Your task to perform on an android device: set the stopwatch Image 0: 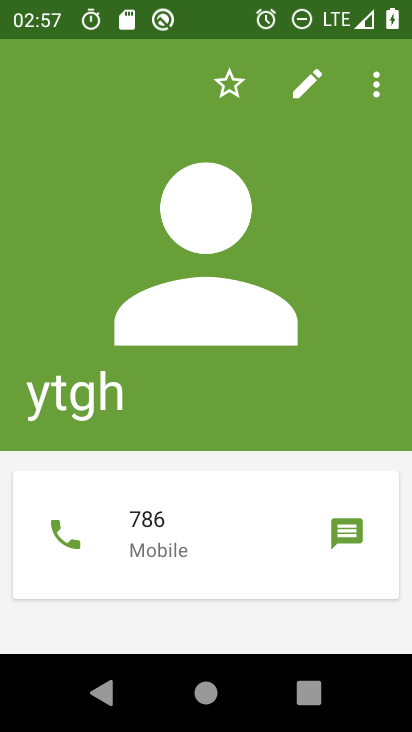
Step 0: press home button
Your task to perform on an android device: set the stopwatch Image 1: 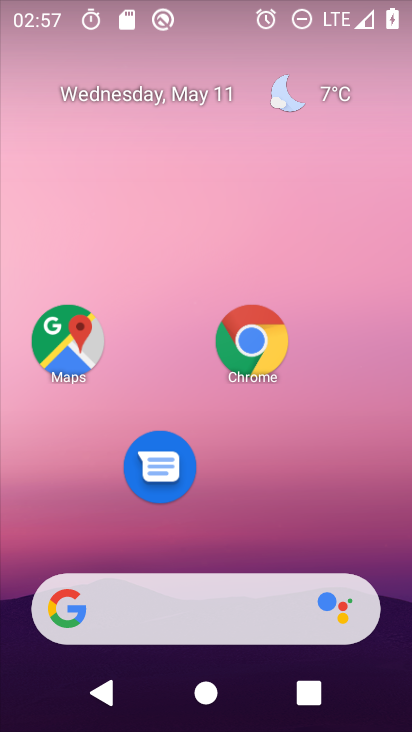
Step 1: drag from (158, 617) to (250, 156)
Your task to perform on an android device: set the stopwatch Image 2: 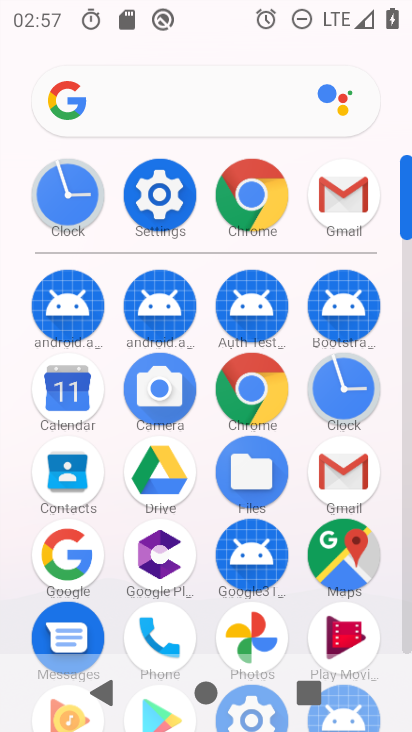
Step 2: click (341, 398)
Your task to perform on an android device: set the stopwatch Image 3: 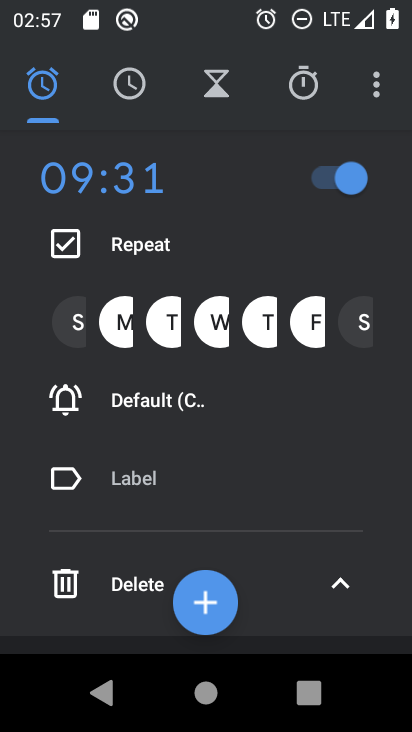
Step 3: click (308, 88)
Your task to perform on an android device: set the stopwatch Image 4: 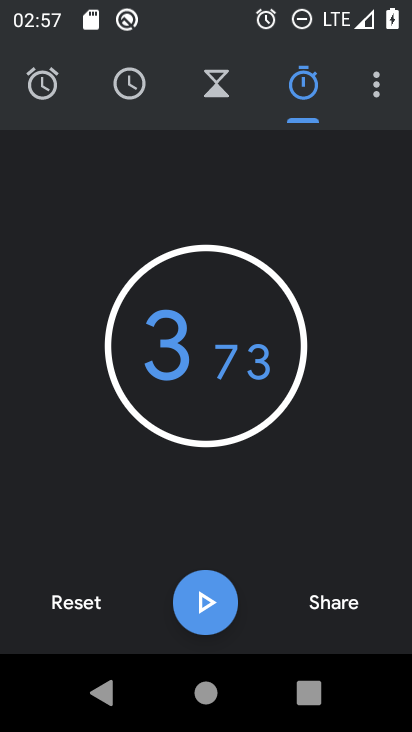
Step 4: click (79, 602)
Your task to perform on an android device: set the stopwatch Image 5: 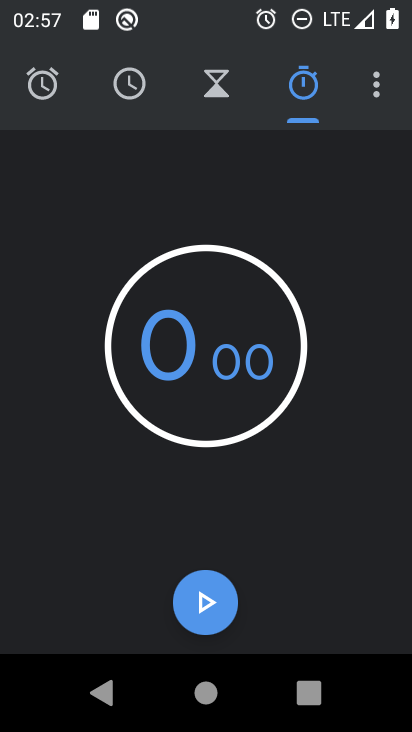
Step 5: click (212, 362)
Your task to perform on an android device: set the stopwatch Image 6: 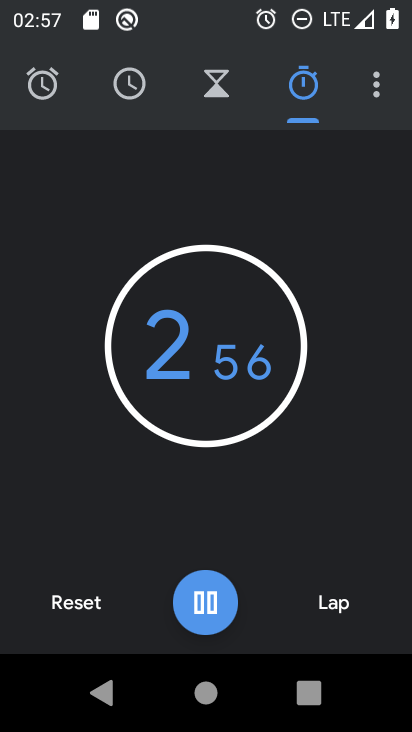
Step 6: click (217, 339)
Your task to perform on an android device: set the stopwatch Image 7: 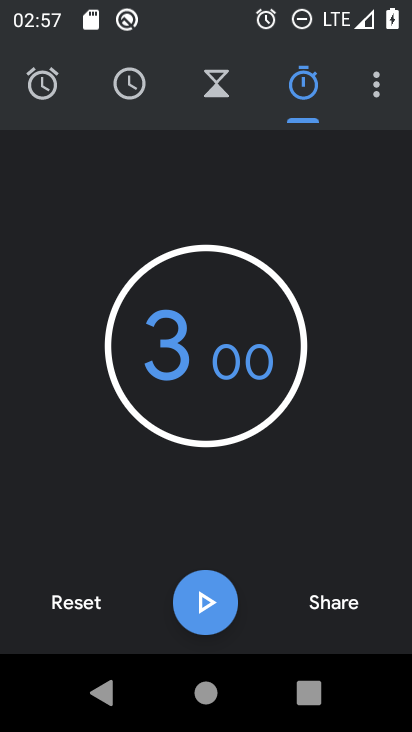
Step 7: task complete